Your task to perform on an android device: refresh tabs in the chrome app Image 0: 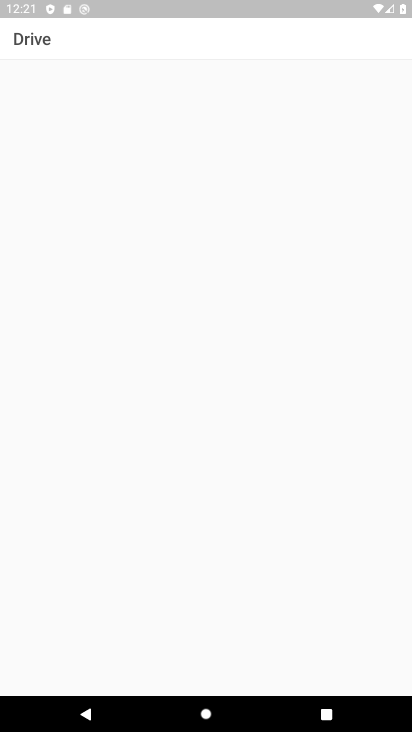
Step 0: press home button
Your task to perform on an android device: refresh tabs in the chrome app Image 1: 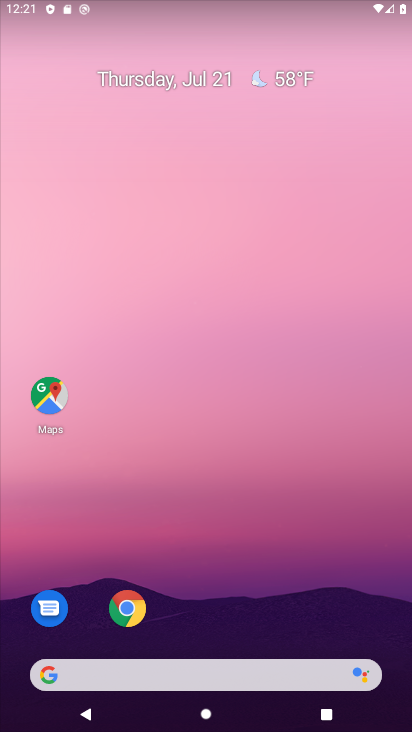
Step 1: click (132, 603)
Your task to perform on an android device: refresh tabs in the chrome app Image 2: 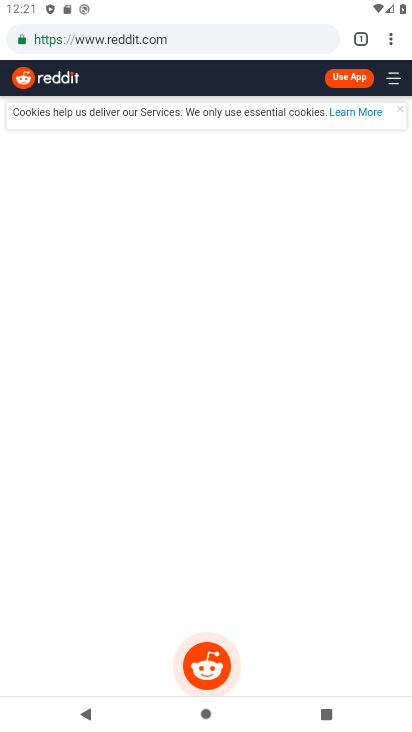
Step 2: click (383, 39)
Your task to perform on an android device: refresh tabs in the chrome app Image 3: 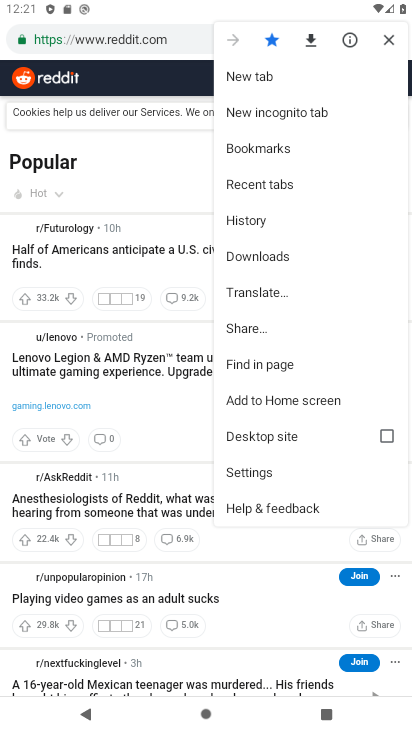
Step 3: click (385, 42)
Your task to perform on an android device: refresh tabs in the chrome app Image 4: 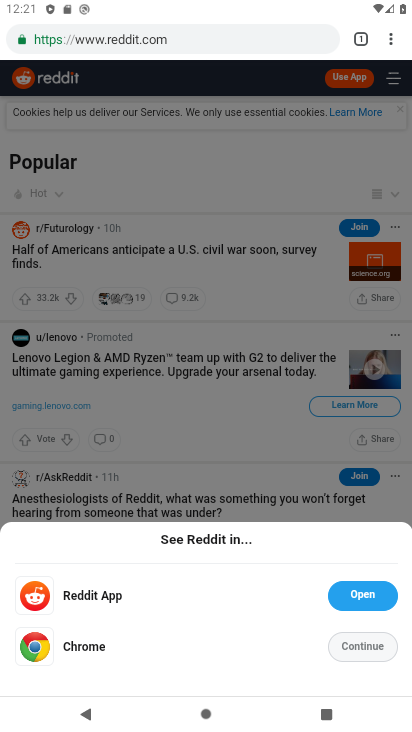
Step 4: click (363, 646)
Your task to perform on an android device: refresh tabs in the chrome app Image 5: 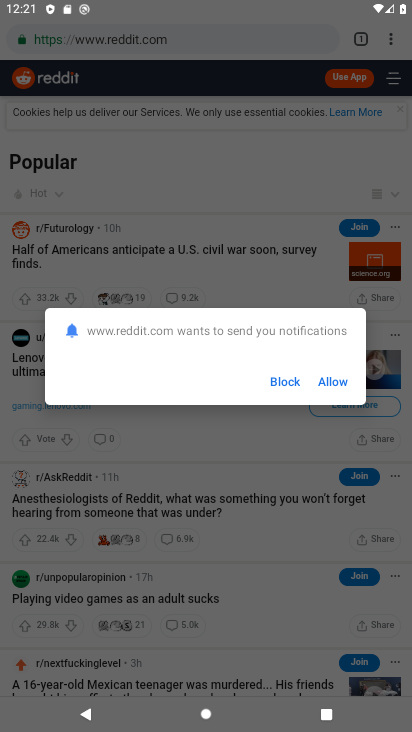
Step 5: click (323, 385)
Your task to perform on an android device: refresh tabs in the chrome app Image 6: 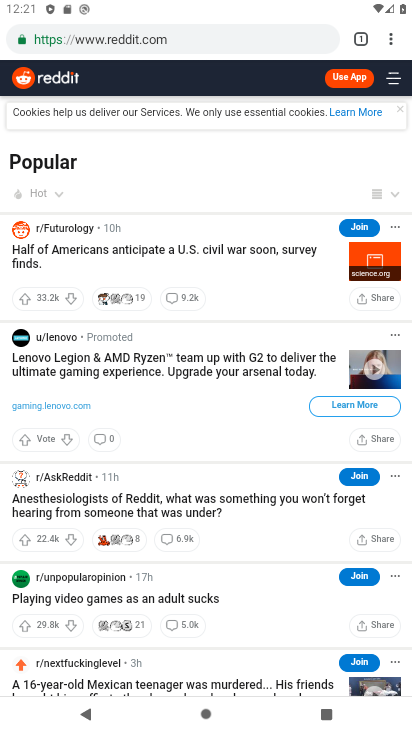
Step 6: click (384, 38)
Your task to perform on an android device: refresh tabs in the chrome app Image 7: 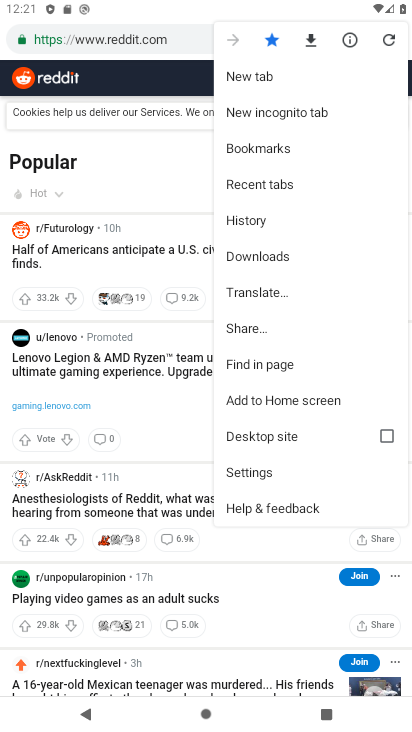
Step 7: click (385, 40)
Your task to perform on an android device: refresh tabs in the chrome app Image 8: 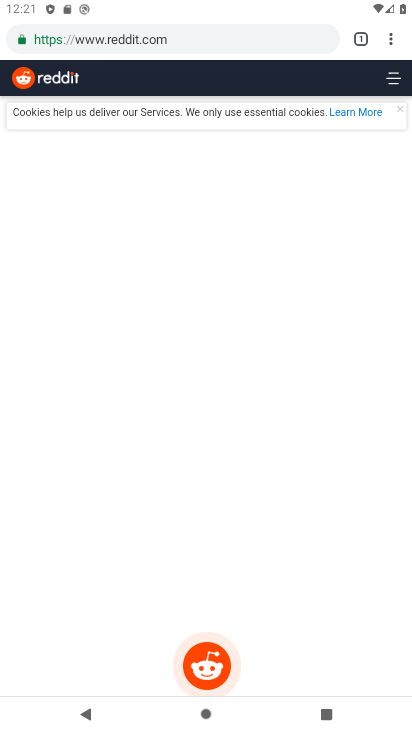
Step 8: task complete